Your task to perform on an android device: See recent photos Image 0: 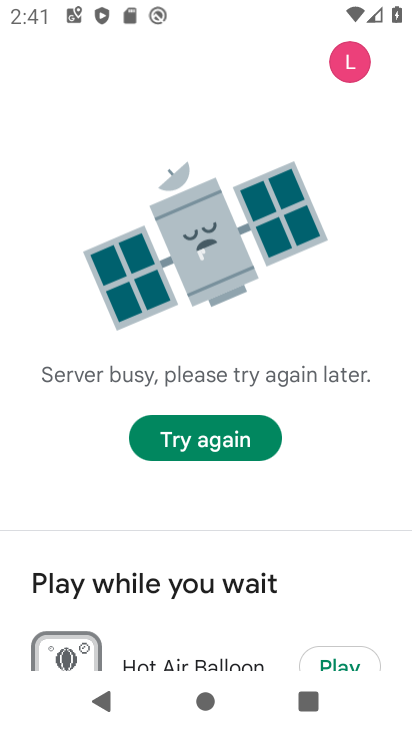
Step 0: press home button
Your task to perform on an android device: See recent photos Image 1: 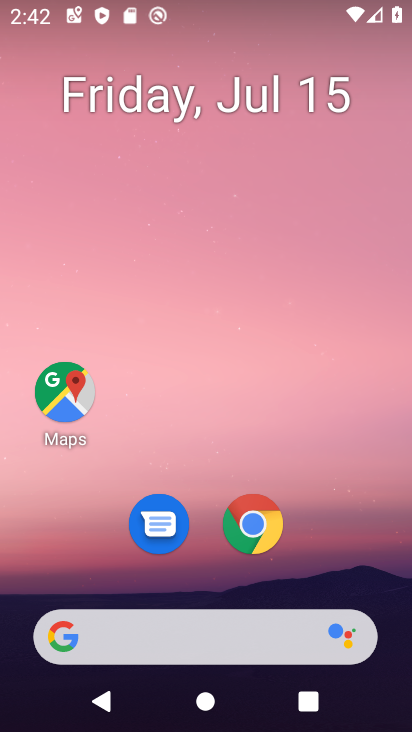
Step 1: drag from (194, 615) to (276, 75)
Your task to perform on an android device: See recent photos Image 2: 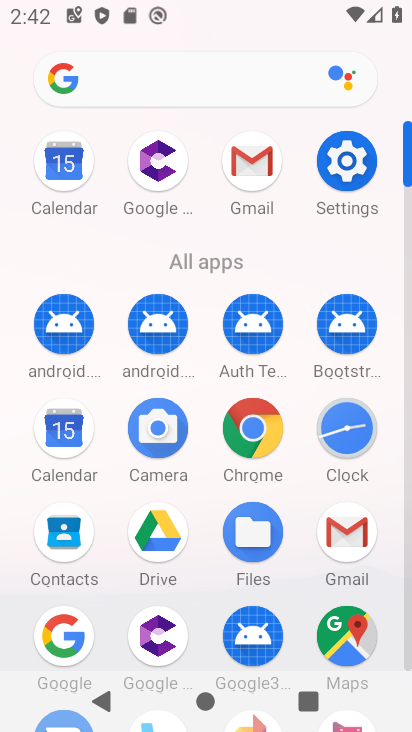
Step 2: drag from (216, 573) to (345, 169)
Your task to perform on an android device: See recent photos Image 3: 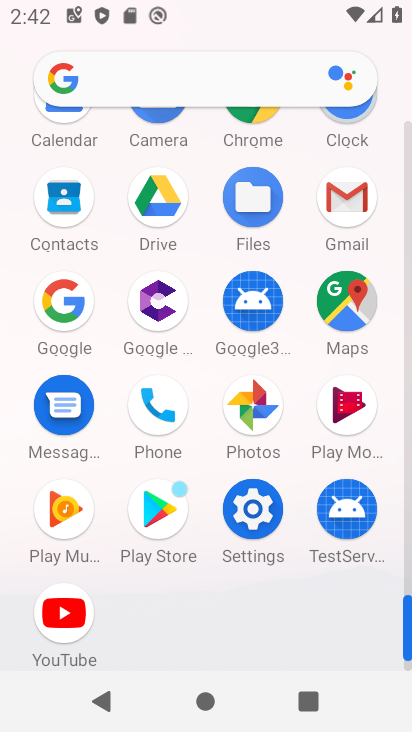
Step 3: click (258, 414)
Your task to perform on an android device: See recent photos Image 4: 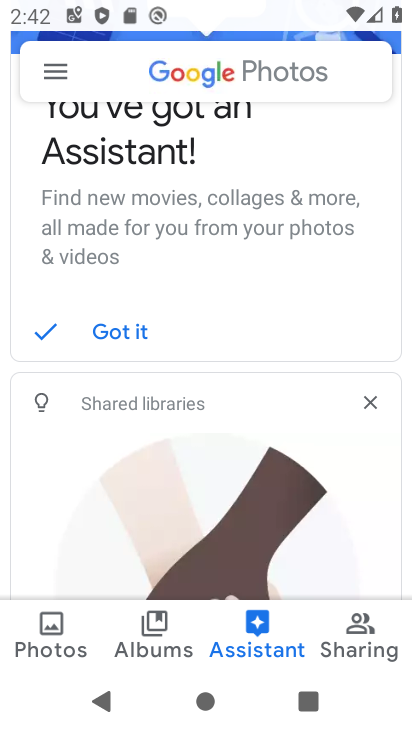
Step 4: click (147, 649)
Your task to perform on an android device: See recent photos Image 5: 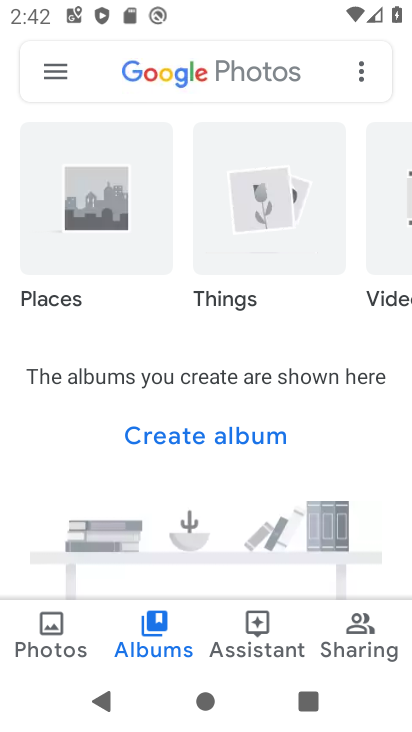
Step 5: task complete